Your task to perform on an android device: Toggle the flashlight Image 0: 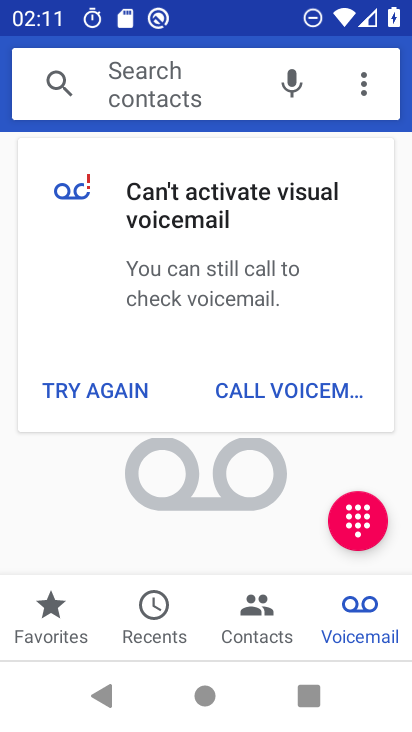
Step 0: press home button
Your task to perform on an android device: Toggle the flashlight Image 1: 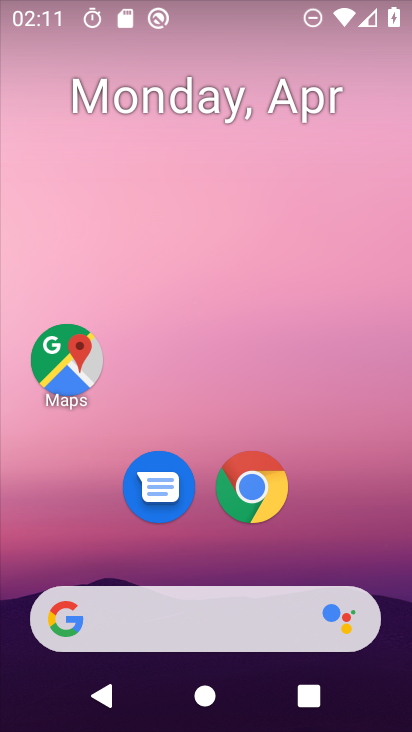
Step 1: drag from (270, 625) to (305, 166)
Your task to perform on an android device: Toggle the flashlight Image 2: 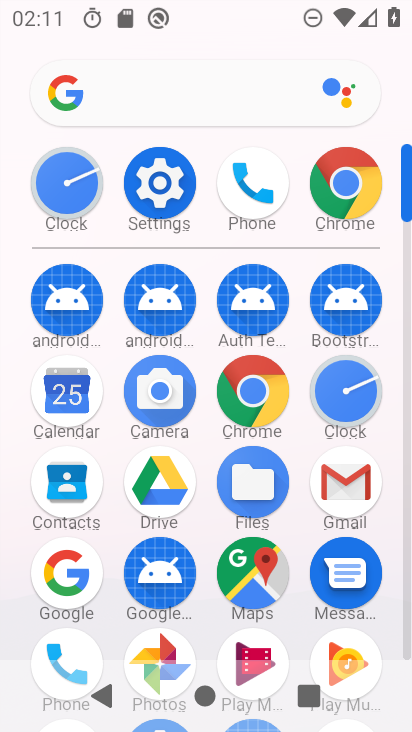
Step 2: click (177, 189)
Your task to perform on an android device: Toggle the flashlight Image 3: 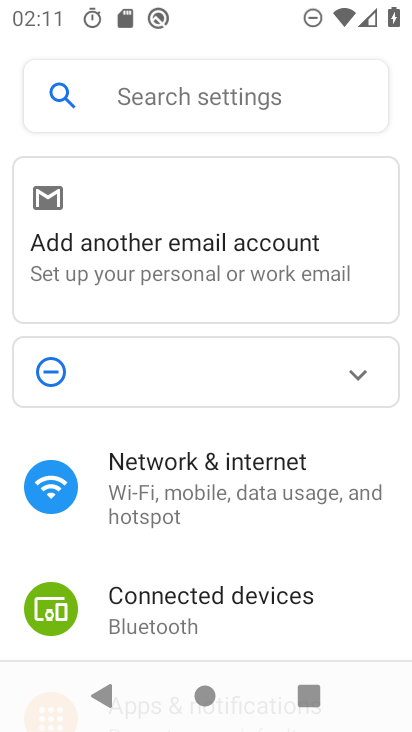
Step 3: click (163, 100)
Your task to perform on an android device: Toggle the flashlight Image 4: 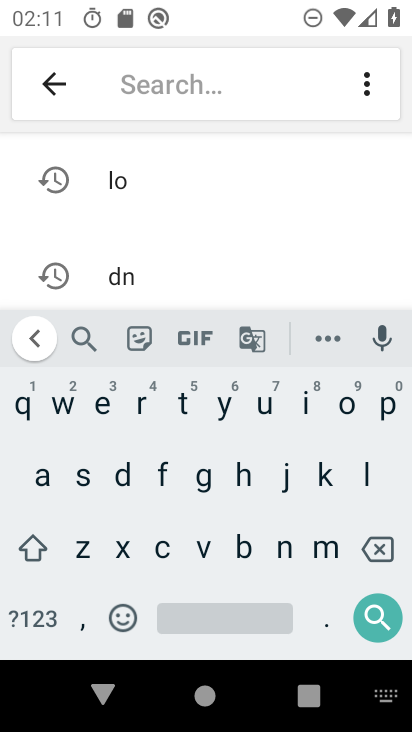
Step 4: click (164, 471)
Your task to perform on an android device: Toggle the flashlight Image 5: 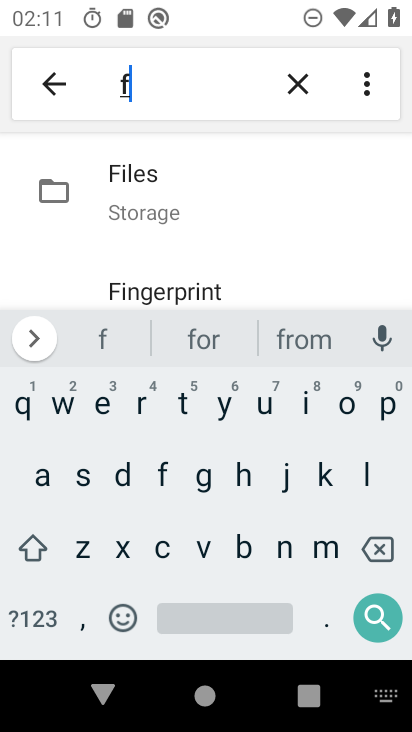
Step 5: click (366, 473)
Your task to perform on an android device: Toggle the flashlight Image 6: 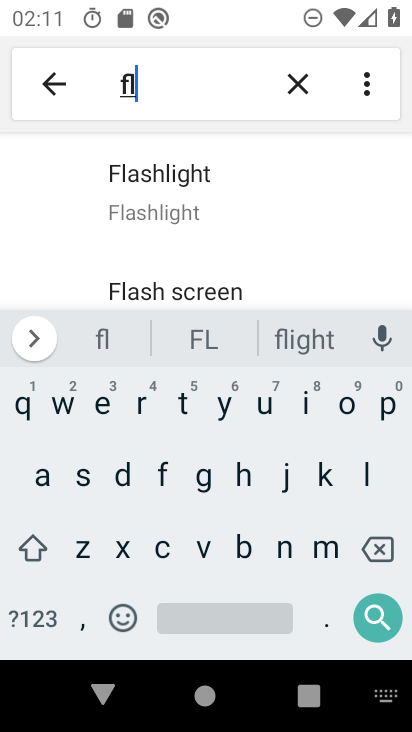
Step 6: click (218, 195)
Your task to perform on an android device: Toggle the flashlight Image 7: 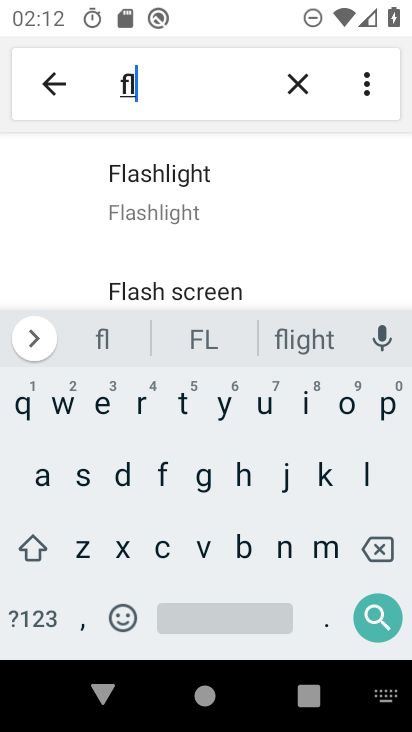
Step 7: click (218, 195)
Your task to perform on an android device: Toggle the flashlight Image 8: 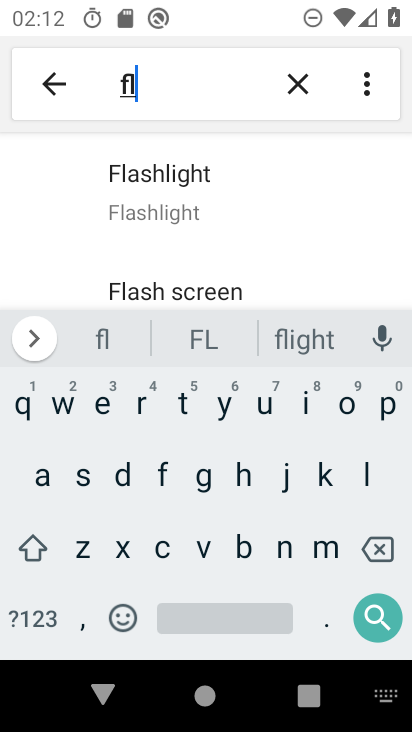
Step 8: task complete